Your task to perform on an android device: Go to internet settings Image 0: 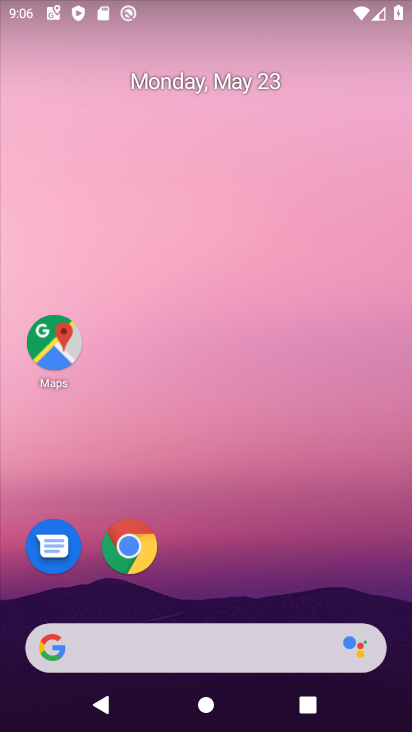
Step 0: drag from (295, 582) to (249, 112)
Your task to perform on an android device: Go to internet settings Image 1: 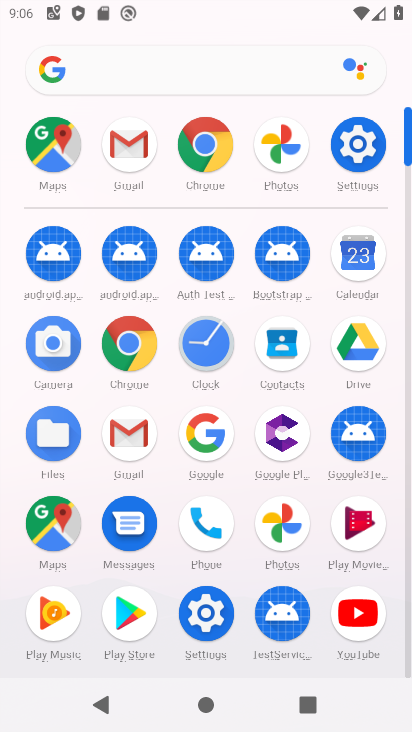
Step 1: click (357, 148)
Your task to perform on an android device: Go to internet settings Image 2: 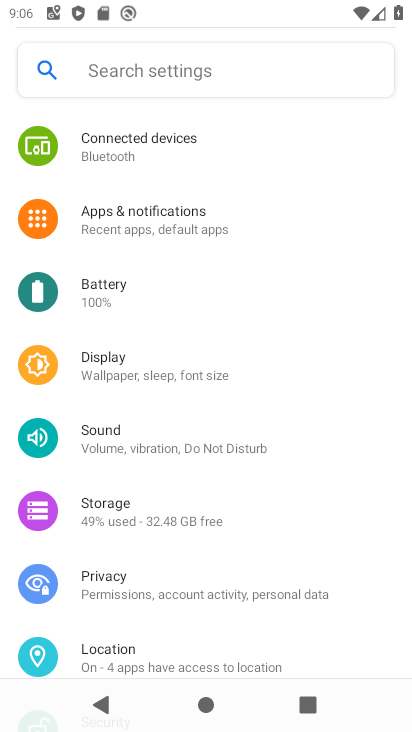
Step 2: drag from (141, 189) to (152, 429)
Your task to perform on an android device: Go to internet settings Image 3: 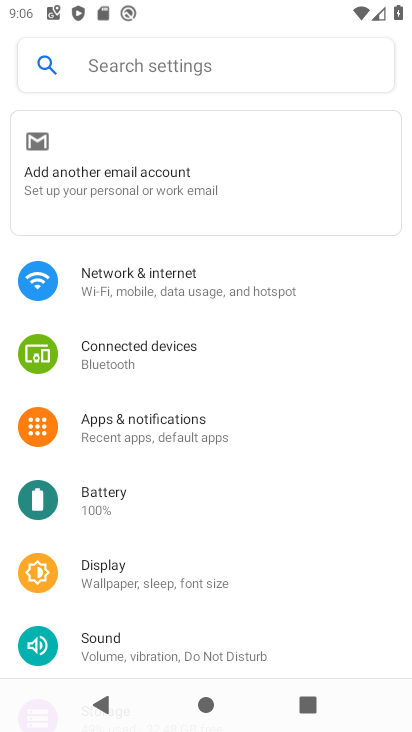
Step 3: click (213, 272)
Your task to perform on an android device: Go to internet settings Image 4: 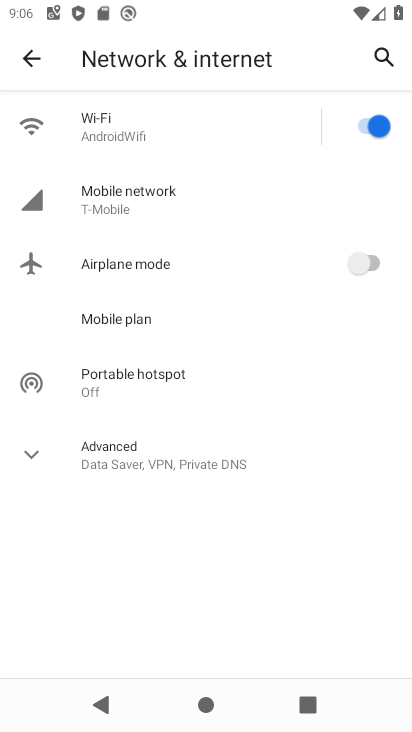
Step 4: task complete